Your task to perform on an android device: snooze an email in the gmail app Image 0: 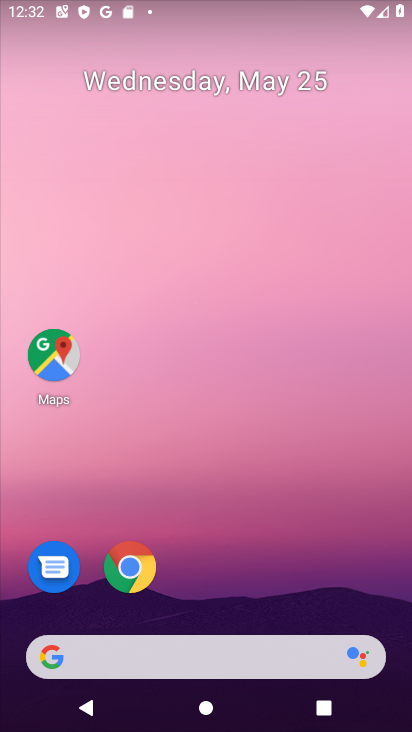
Step 0: drag from (263, 598) to (228, 211)
Your task to perform on an android device: snooze an email in the gmail app Image 1: 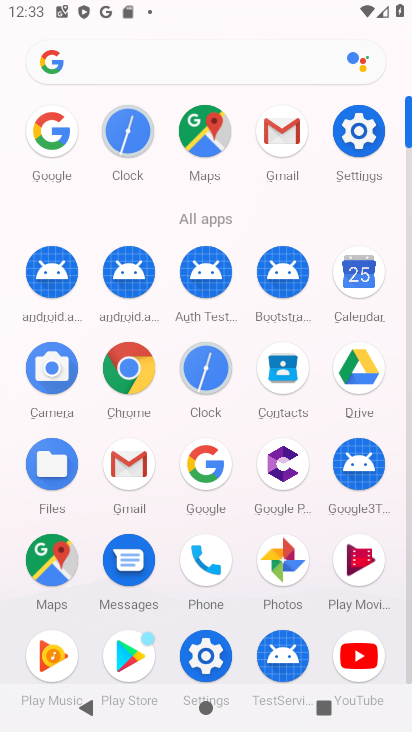
Step 1: click (283, 130)
Your task to perform on an android device: snooze an email in the gmail app Image 2: 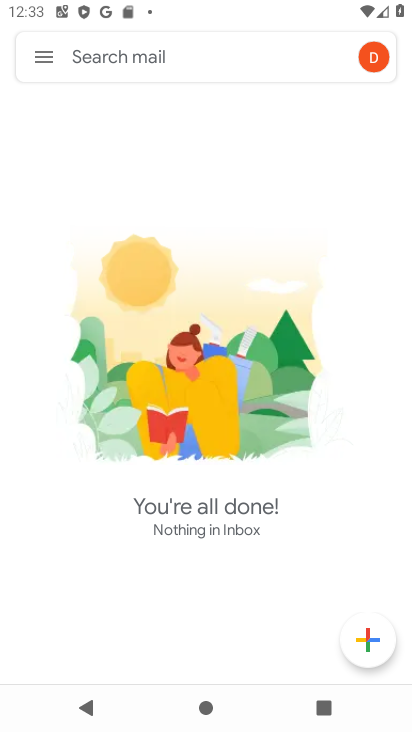
Step 2: click (46, 50)
Your task to perform on an android device: snooze an email in the gmail app Image 3: 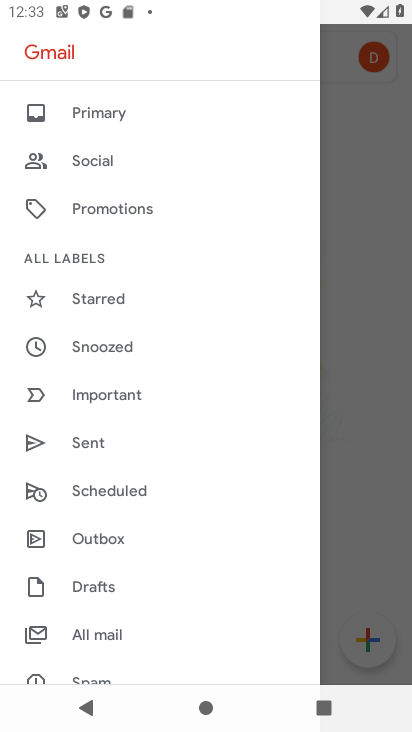
Step 3: click (80, 343)
Your task to perform on an android device: snooze an email in the gmail app Image 4: 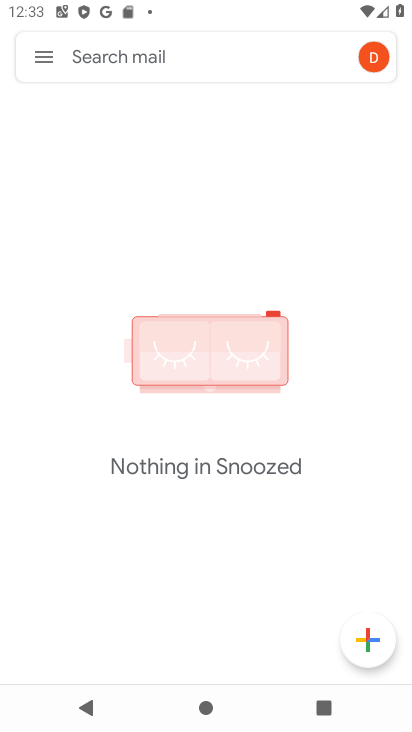
Step 4: click (36, 59)
Your task to perform on an android device: snooze an email in the gmail app Image 5: 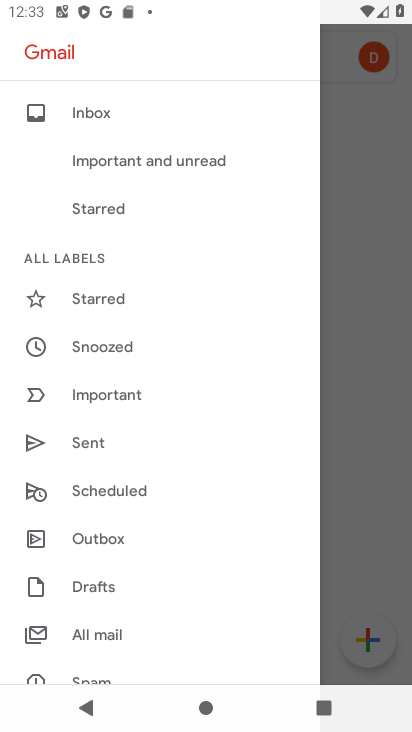
Step 5: click (98, 102)
Your task to perform on an android device: snooze an email in the gmail app Image 6: 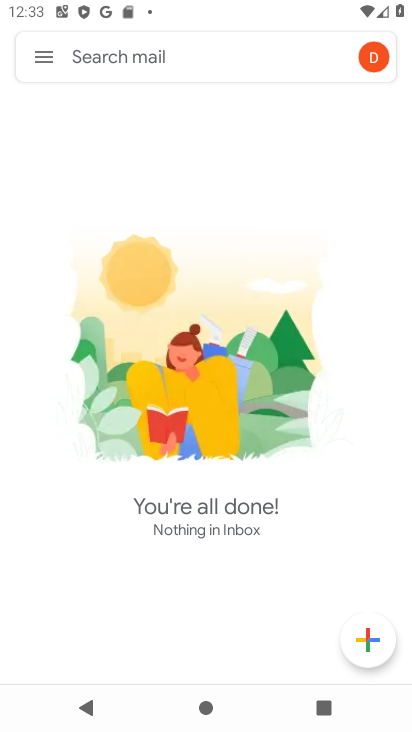
Step 6: click (36, 43)
Your task to perform on an android device: snooze an email in the gmail app Image 7: 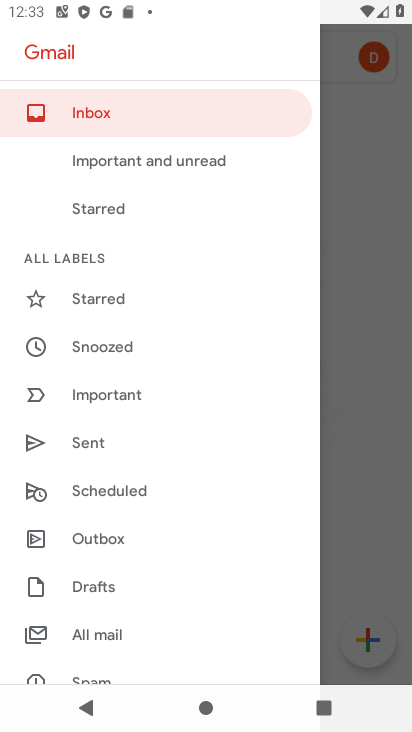
Step 7: drag from (103, 456) to (111, 349)
Your task to perform on an android device: snooze an email in the gmail app Image 8: 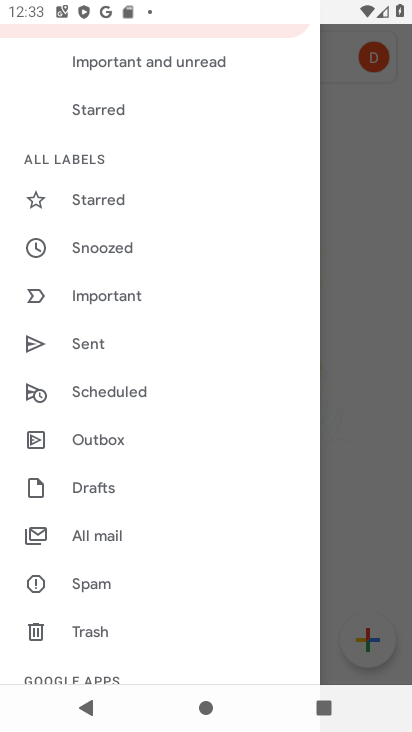
Step 8: drag from (98, 466) to (74, 365)
Your task to perform on an android device: snooze an email in the gmail app Image 9: 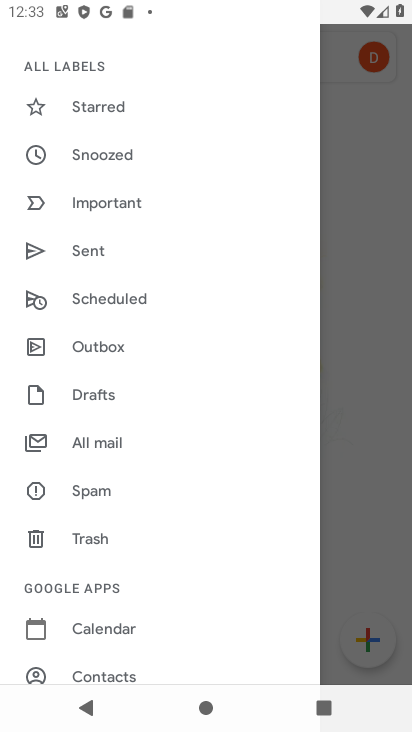
Step 9: click (109, 445)
Your task to perform on an android device: snooze an email in the gmail app Image 10: 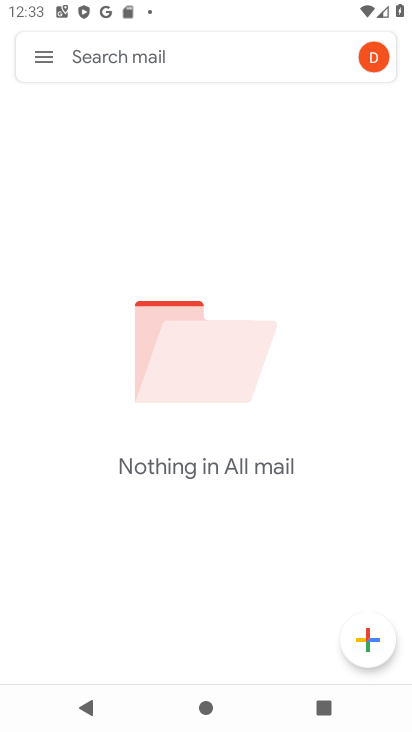
Step 10: task complete